Your task to perform on an android device: Open Android settings Image 0: 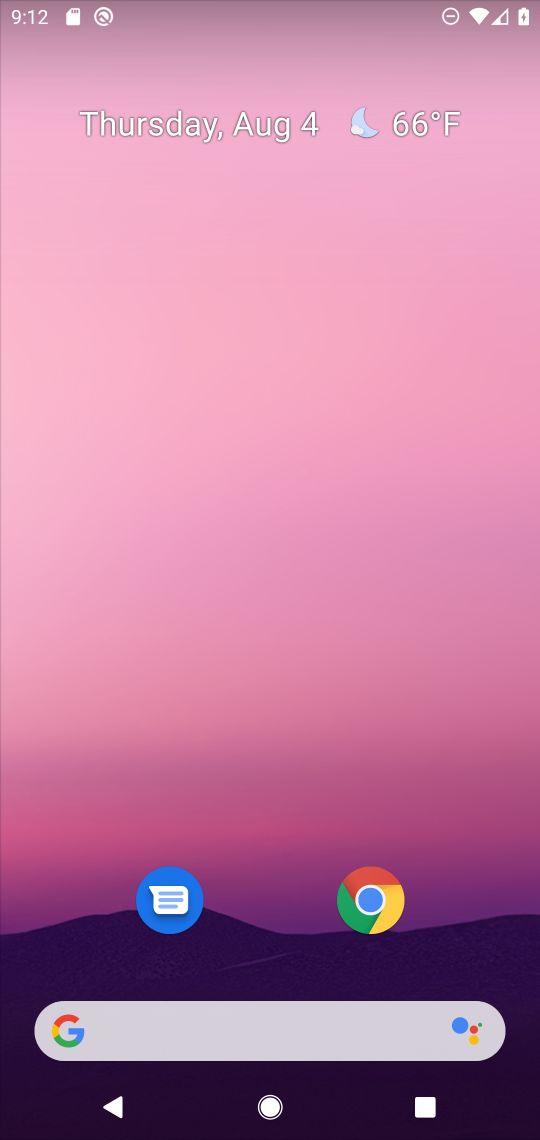
Step 0: drag from (227, 809) to (258, 122)
Your task to perform on an android device: Open Android settings Image 1: 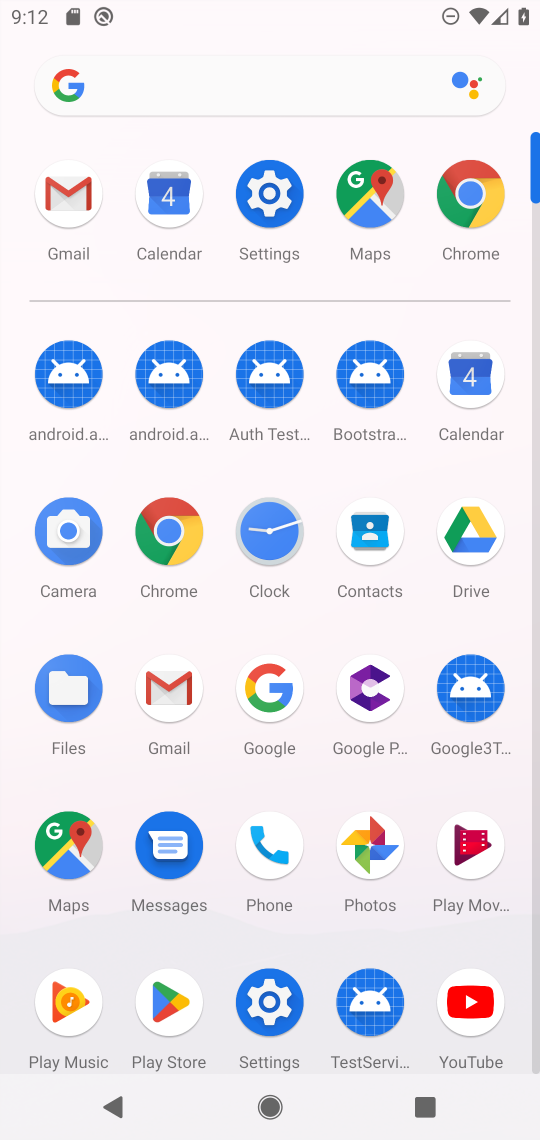
Step 1: click (261, 204)
Your task to perform on an android device: Open Android settings Image 2: 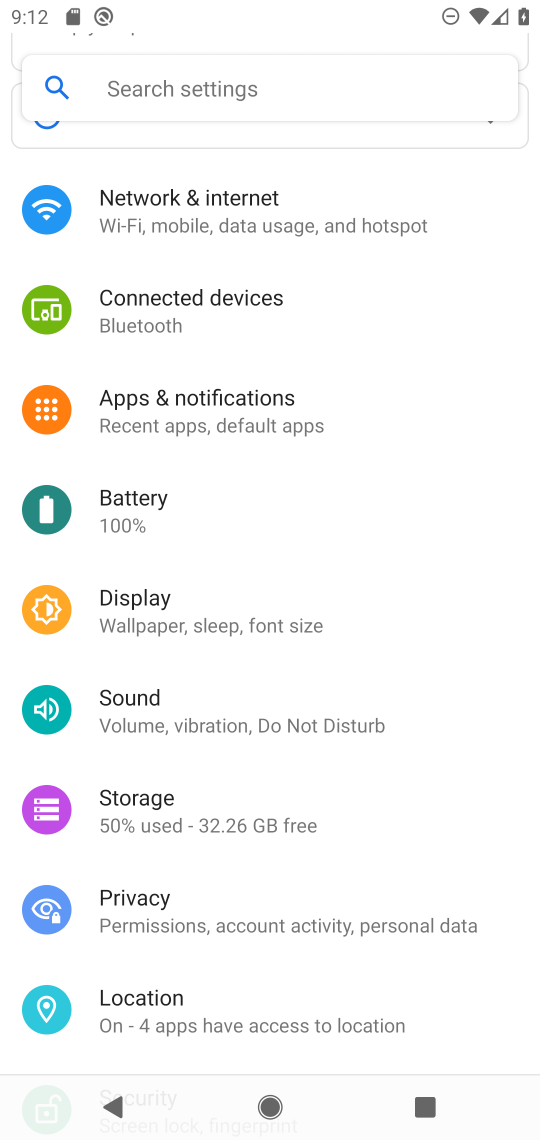
Step 2: drag from (296, 973) to (244, 533)
Your task to perform on an android device: Open Android settings Image 3: 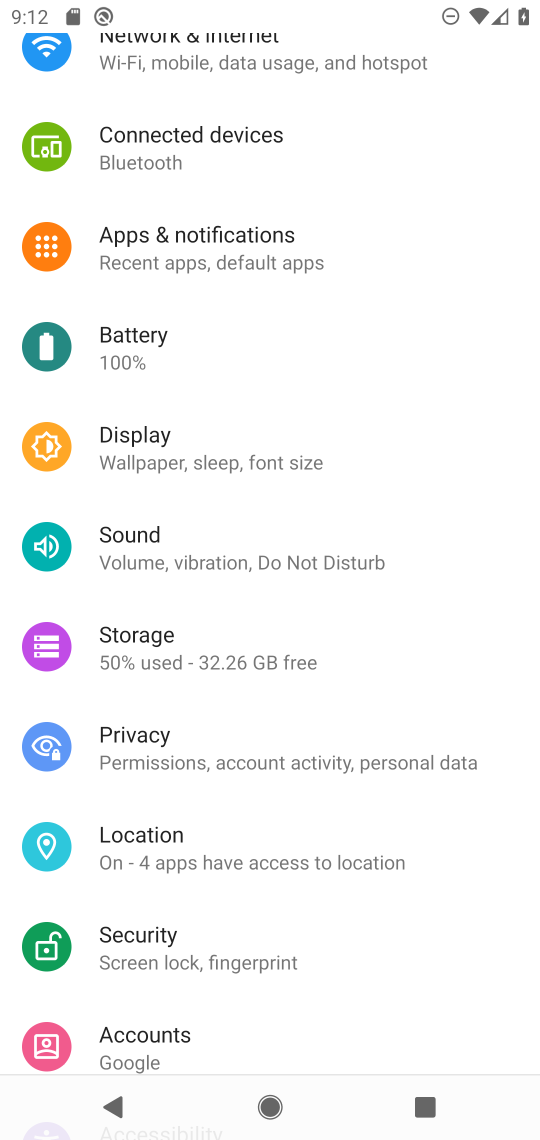
Step 3: drag from (164, 861) to (109, 462)
Your task to perform on an android device: Open Android settings Image 4: 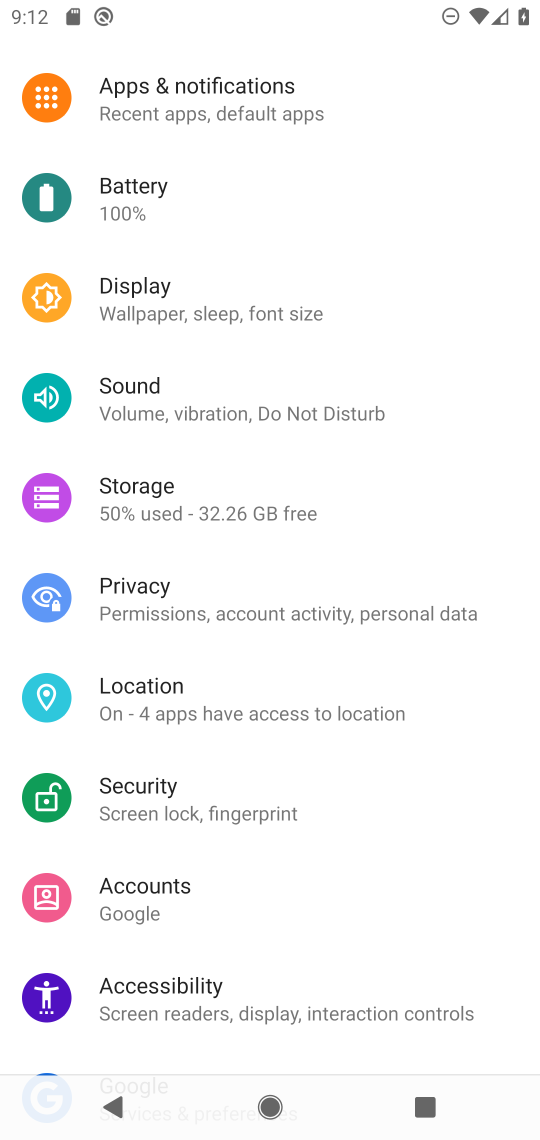
Step 4: drag from (140, 989) to (149, 337)
Your task to perform on an android device: Open Android settings Image 5: 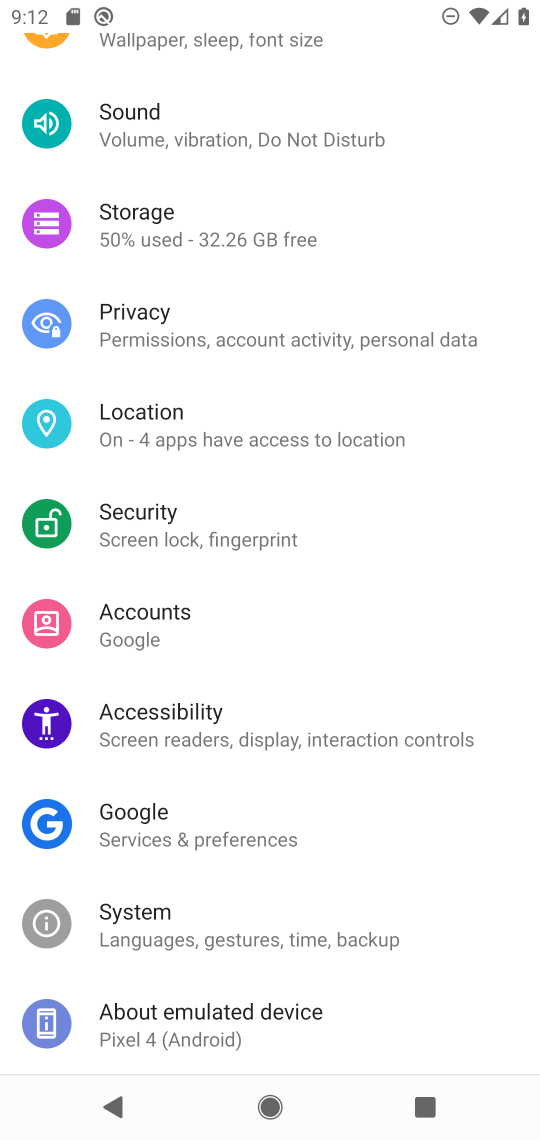
Step 5: click (158, 1028)
Your task to perform on an android device: Open Android settings Image 6: 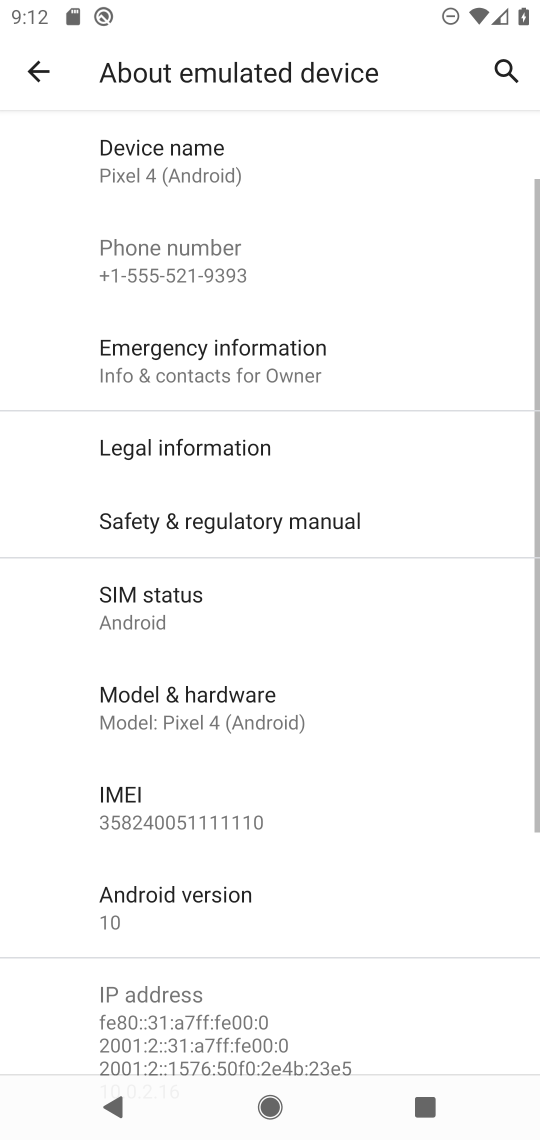
Step 6: click (147, 915)
Your task to perform on an android device: Open Android settings Image 7: 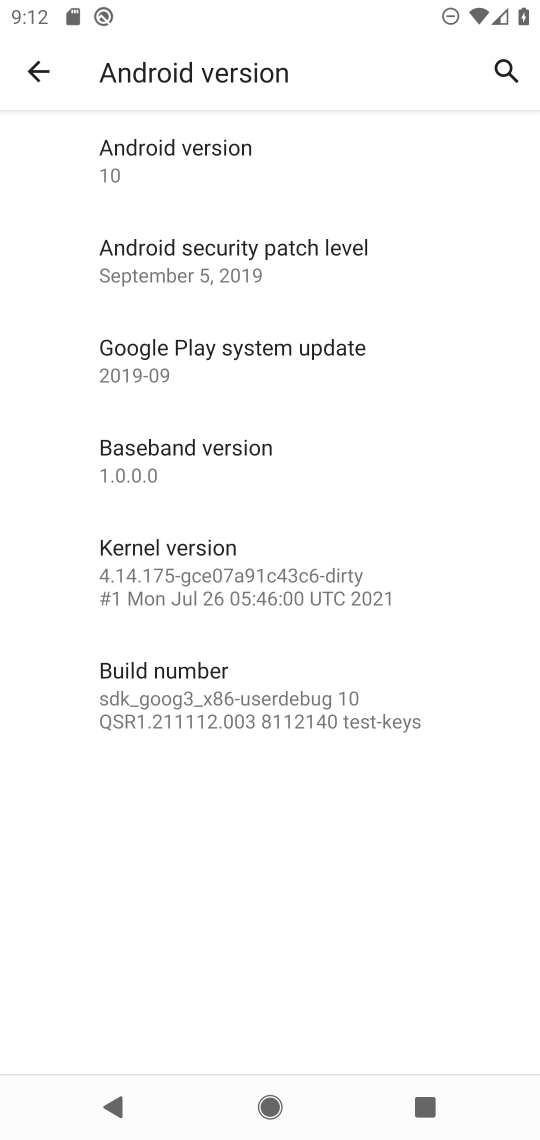
Step 7: task complete